Your task to perform on an android device: allow cookies in the chrome app Image 0: 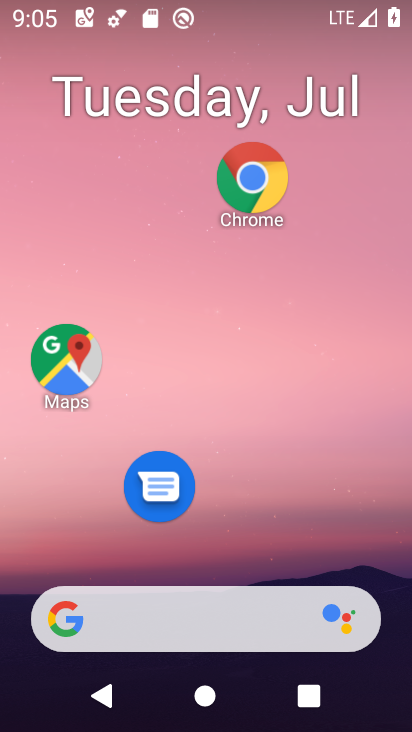
Step 0: drag from (161, 565) to (159, 139)
Your task to perform on an android device: allow cookies in the chrome app Image 1: 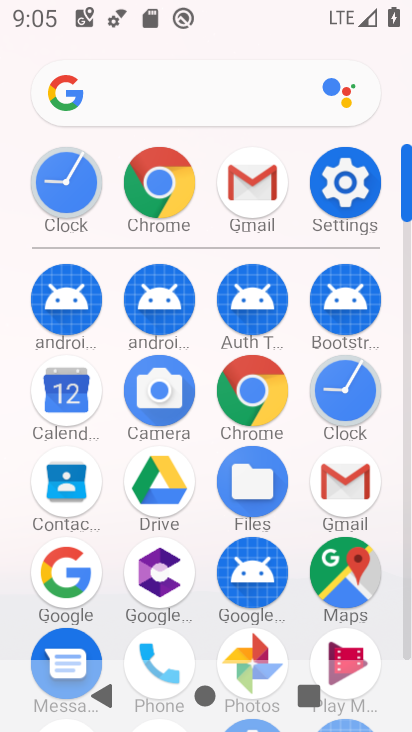
Step 1: click (246, 415)
Your task to perform on an android device: allow cookies in the chrome app Image 2: 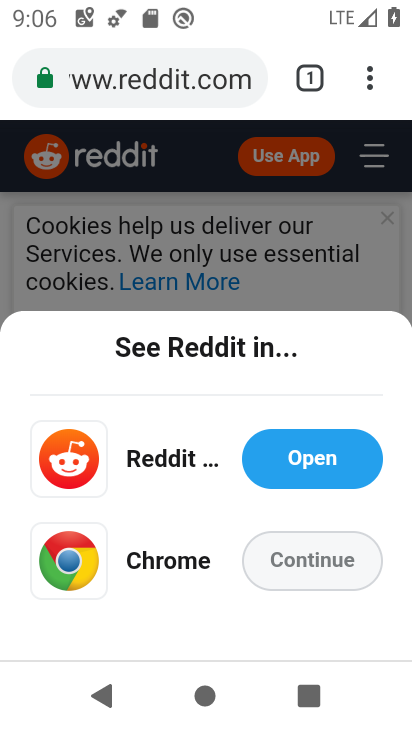
Step 2: click (371, 75)
Your task to perform on an android device: allow cookies in the chrome app Image 3: 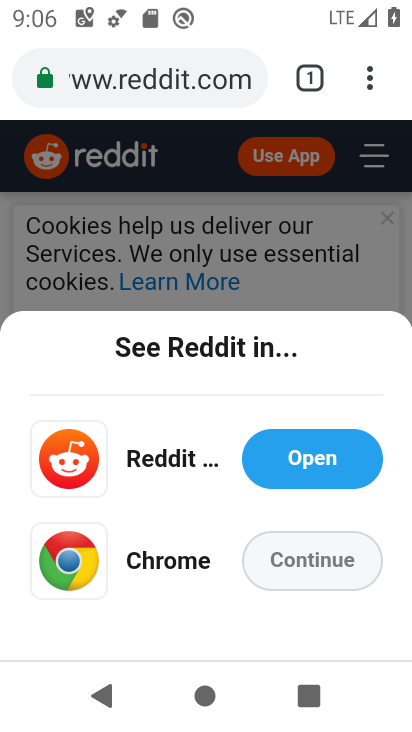
Step 3: click (371, 75)
Your task to perform on an android device: allow cookies in the chrome app Image 4: 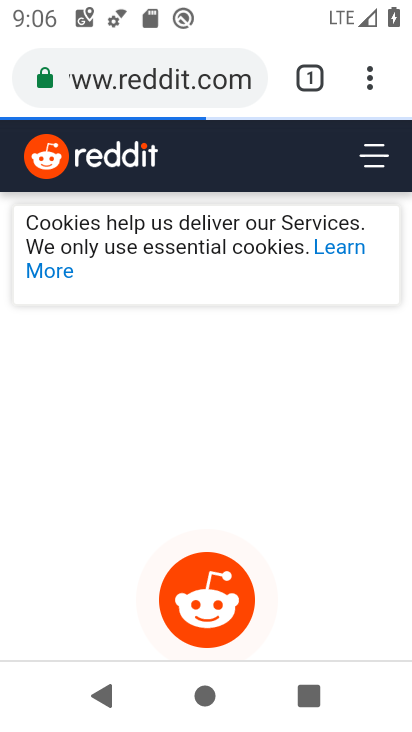
Step 4: click (374, 82)
Your task to perform on an android device: allow cookies in the chrome app Image 5: 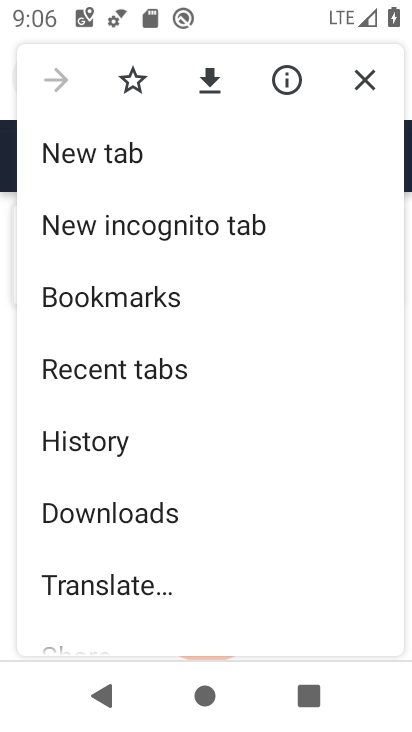
Step 5: drag from (196, 610) to (164, 373)
Your task to perform on an android device: allow cookies in the chrome app Image 6: 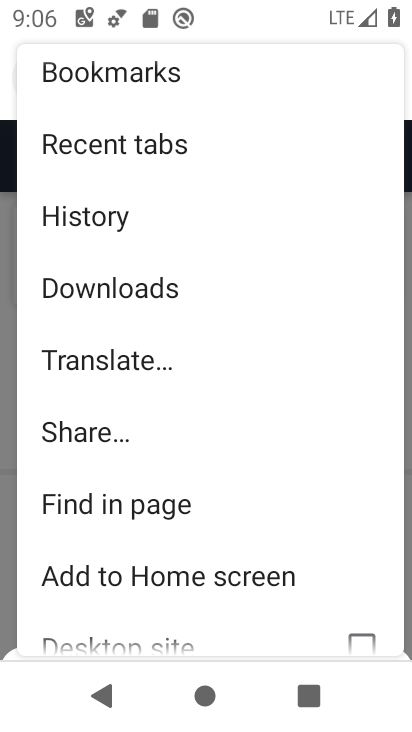
Step 6: drag from (179, 504) to (163, 328)
Your task to perform on an android device: allow cookies in the chrome app Image 7: 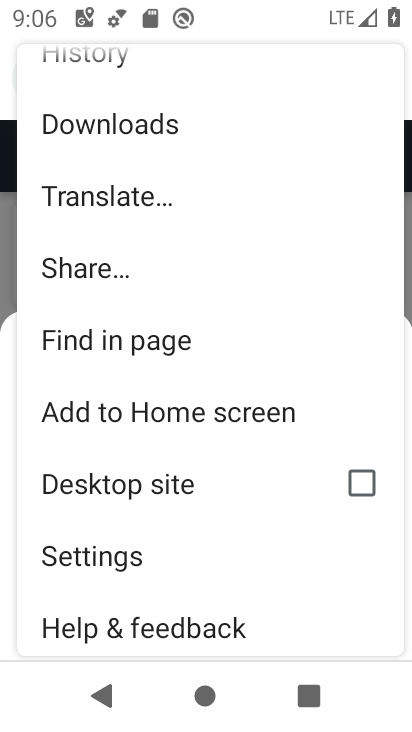
Step 7: click (98, 574)
Your task to perform on an android device: allow cookies in the chrome app Image 8: 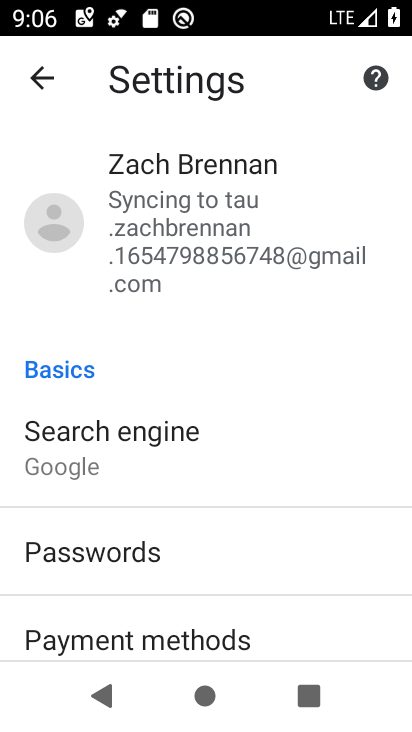
Step 8: drag from (188, 527) to (253, 58)
Your task to perform on an android device: allow cookies in the chrome app Image 9: 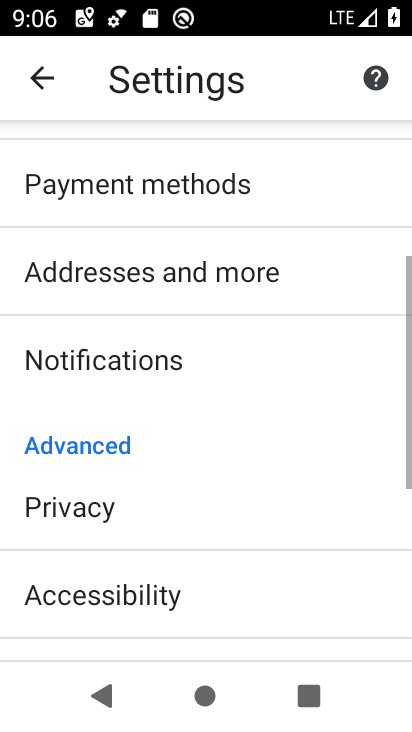
Step 9: drag from (156, 567) to (258, 175)
Your task to perform on an android device: allow cookies in the chrome app Image 10: 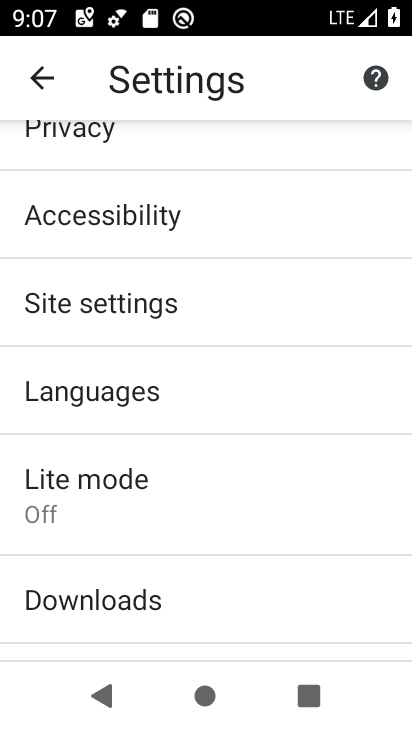
Step 10: drag from (124, 624) to (168, 269)
Your task to perform on an android device: allow cookies in the chrome app Image 11: 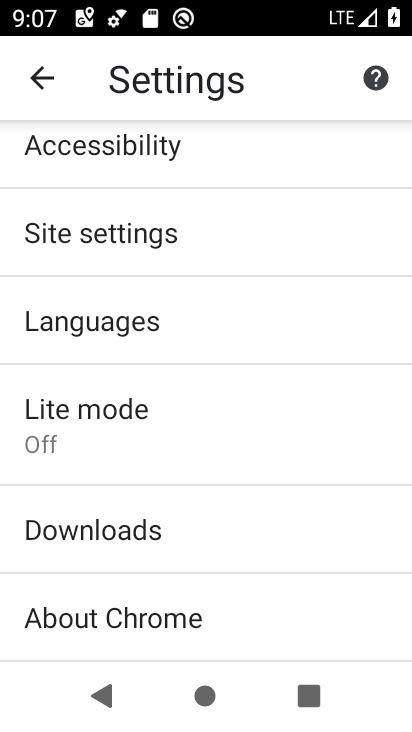
Step 11: drag from (117, 364) to (116, 536)
Your task to perform on an android device: allow cookies in the chrome app Image 12: 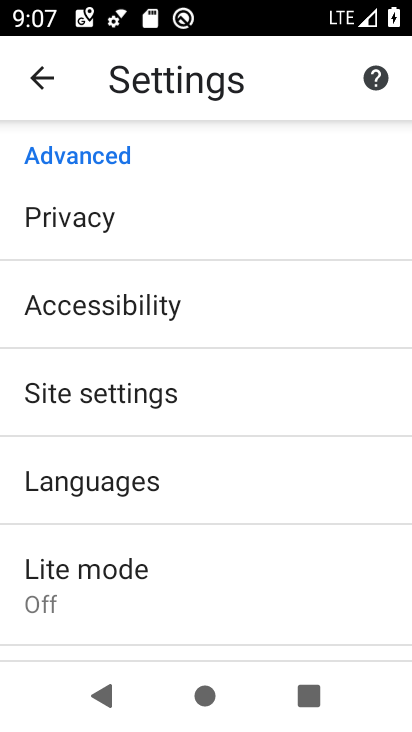
Step 12: click (82, 404)
Your task to perform on an android device: allow cookies in the chrome app Image 13: 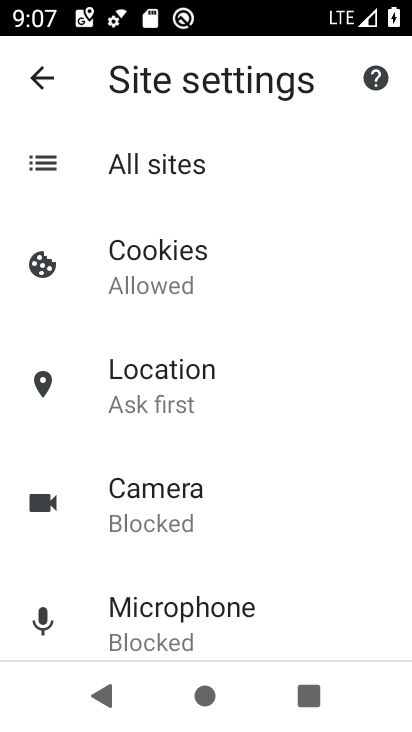
Step 13: click (153, 272)
Your task to perform on an android device: allow cookies in the chrome app Image 14: 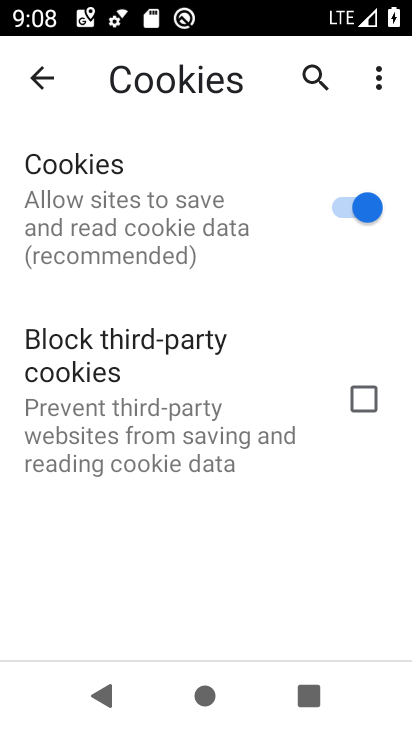
Step 14: task complete